Your task to perform on an android device: find snoozed emails in the gmail app Image 0: 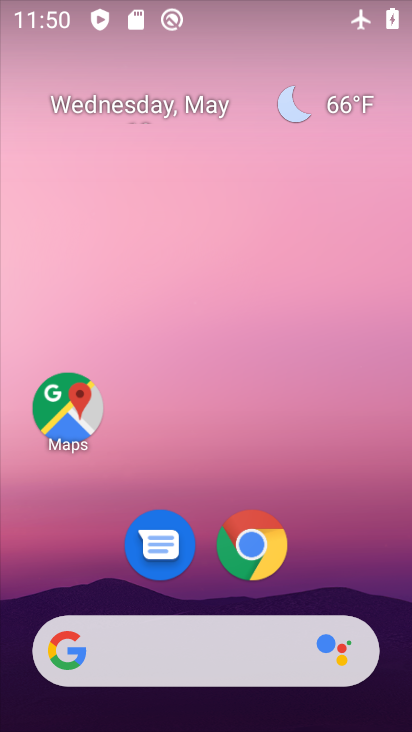
Step 0: drag from (183, 699) to (231, 180)
Your task to perform on an android device: find snoozed emails in the gmail app Image 1: 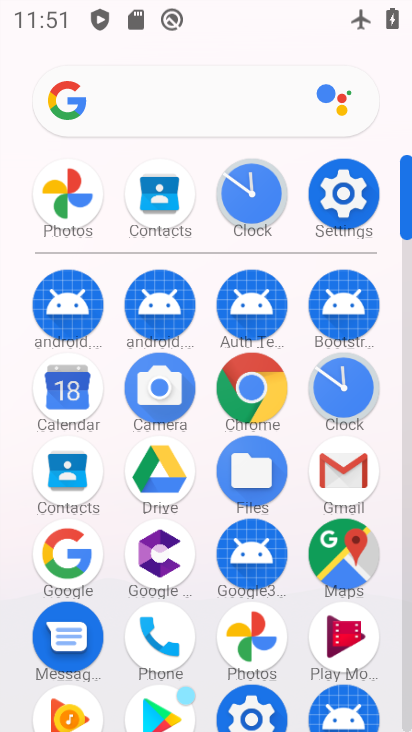
Step 1: click (336, 475)
Your task to perform on an android device: find snoozed emails in the gmail app Image 2: 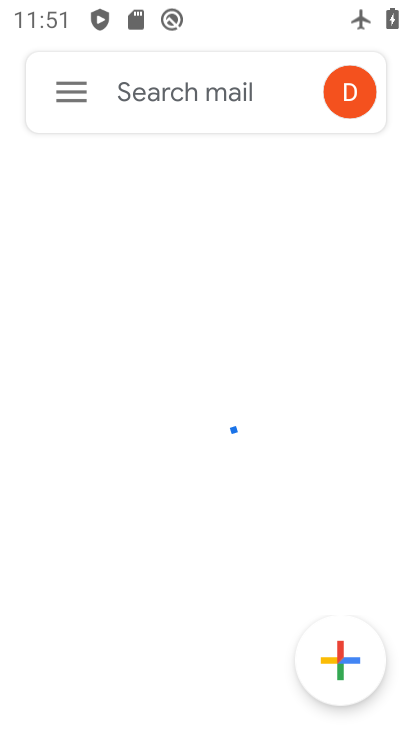
Step 2: click (57, 88)
Your task to perform on an android device: find snoozed emails in the gmail app Image 3: 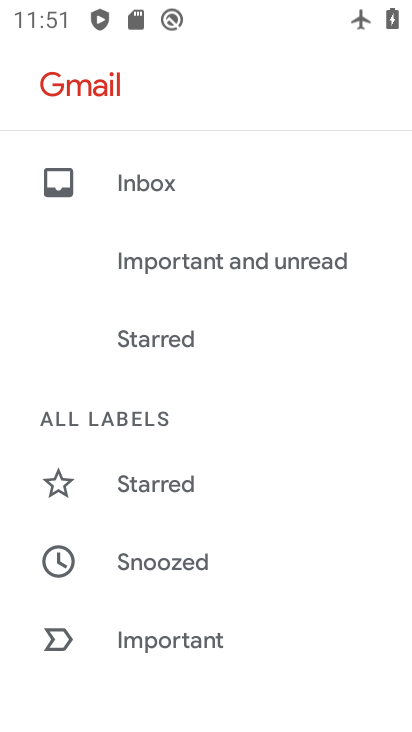
Step 3: click (215, 562)
Your task to perform on an android device: find snoozed emails in the gmail app Image 4: 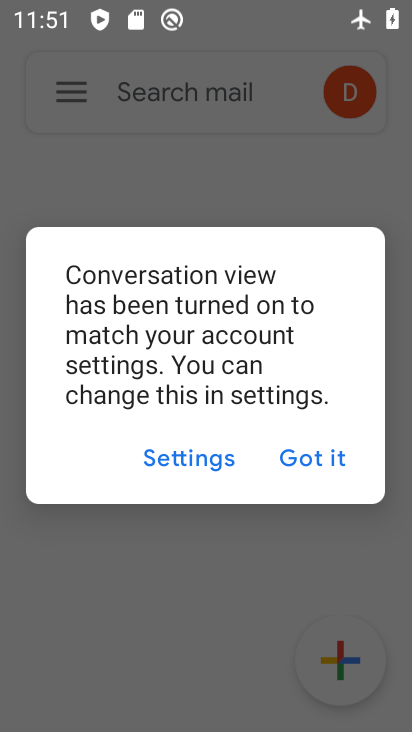
Step 4: click (339, 466)
Your task to perform on an android device: find snoozed emails in the gmail app Image 5: 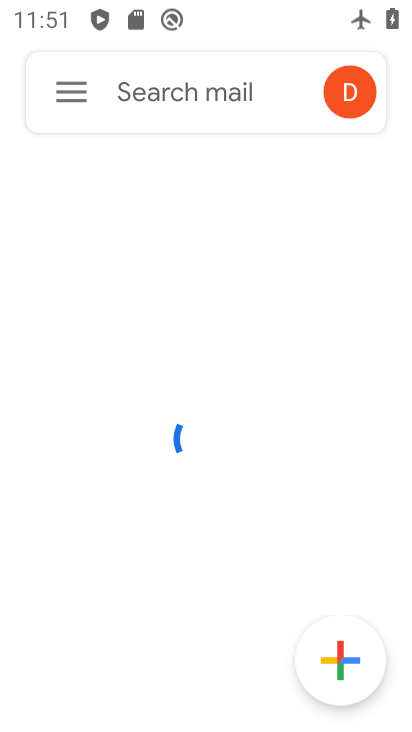
Step 5: click (57, 93)
Your task to perform on an android device: find snoozed emails in the gmail app Image 6: 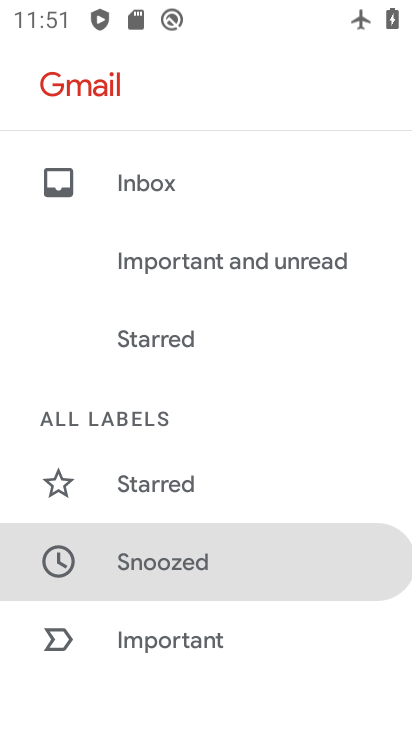
Step 6: click (259, 574)
Your task to perform on an android device: find snoozed emails in the gmail app Image 7: 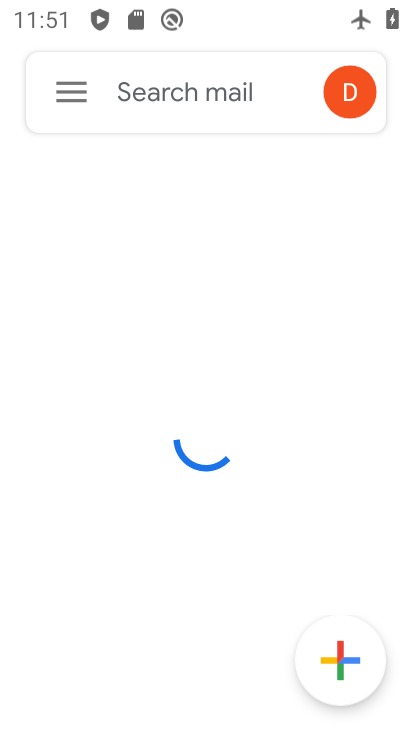
Step 7: task complete